Your task to perform on an android device: Open the calendar and show me this week's events? Image 0: 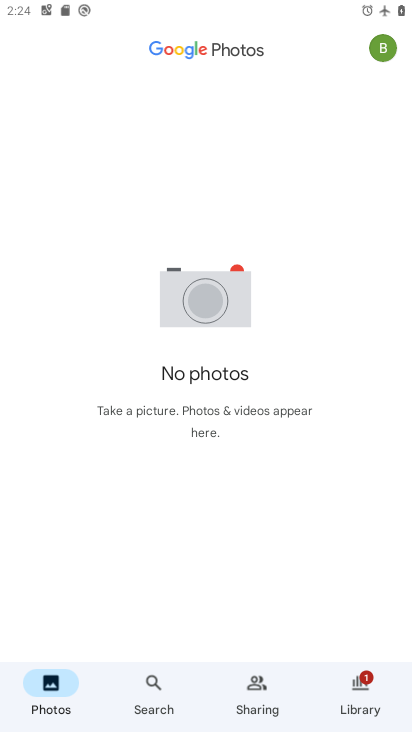
Step 0: press home button
Your task to perform on an android device: Open the calendar and show me this week's events? Image 1: 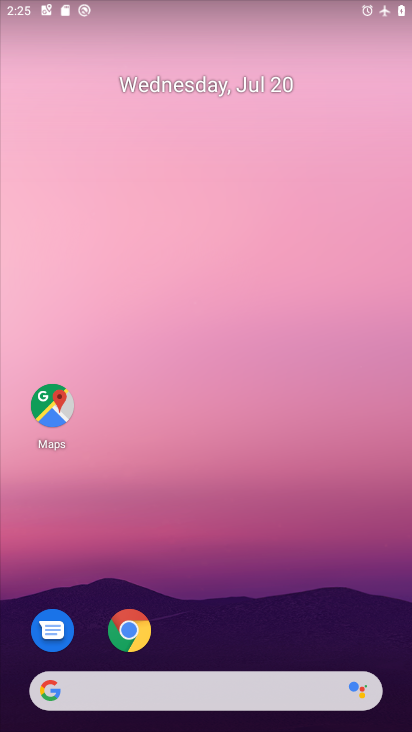
Step 1: drag from (245, 654) to (283, 189)
Your task to perform on an android device: Open the calendar and show me this week's events? Image 2: 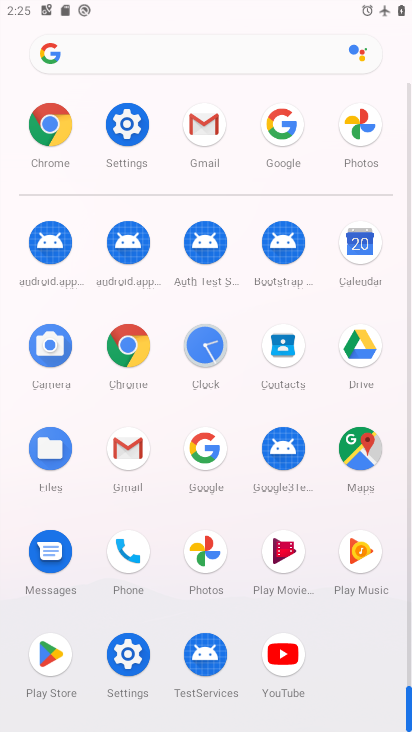
Step 2: click (365, 256)
Your task to perform on an android device: Open the calendar and show me this week's events? Image 3: 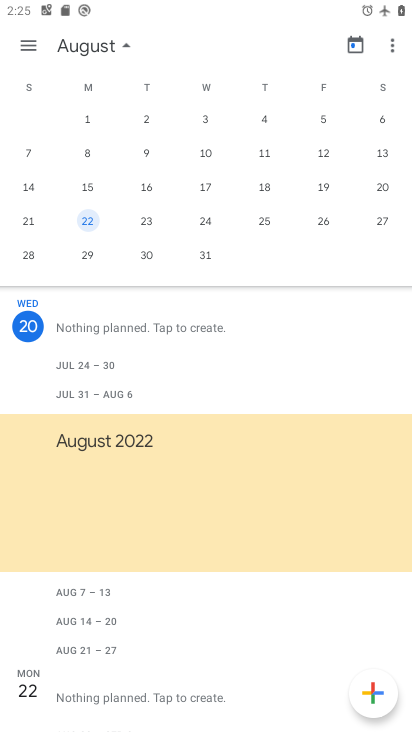
Step 3: drag from (48, 178) to (409, 418)
Your task to perform on an android device: Open the calendar and show me this week's events? Image 4: 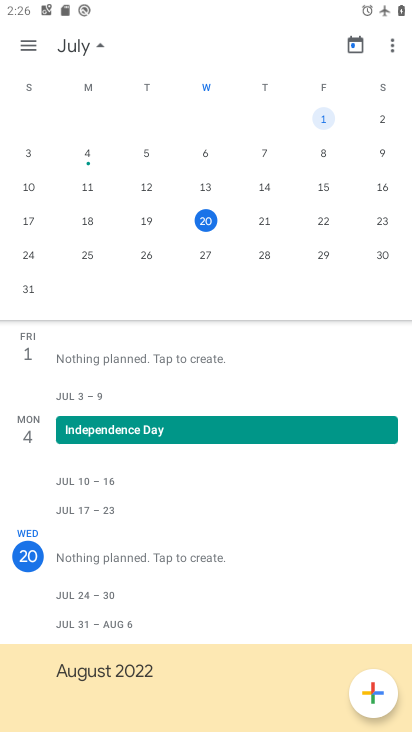
Step 4: click (197, 219)
Your task to perform on an android device: Open the calendar and show me this week's events? Image 5: 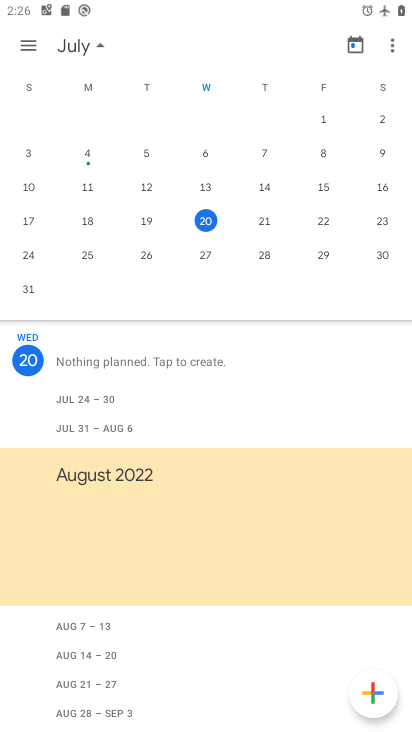
Step 5: task complete